Your task to perform on an android device: toggle translation in the chrome app Image 0: 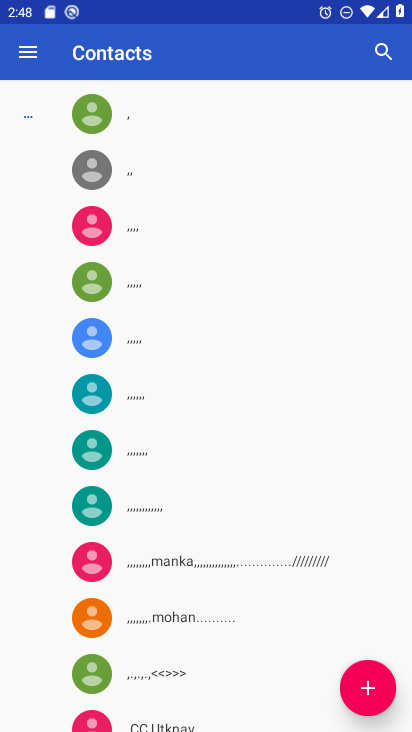
Step 0: press home button
Your task to perform on an android device: toggle translation in the chrome app Image 1: 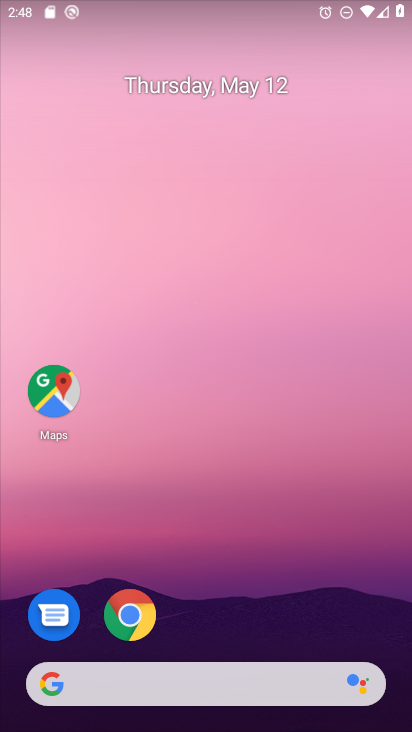
Step 1: drag from (279, 692) to (354, 47)
Your task to perform on an android device: toggle translation in the chrome app Image 2: 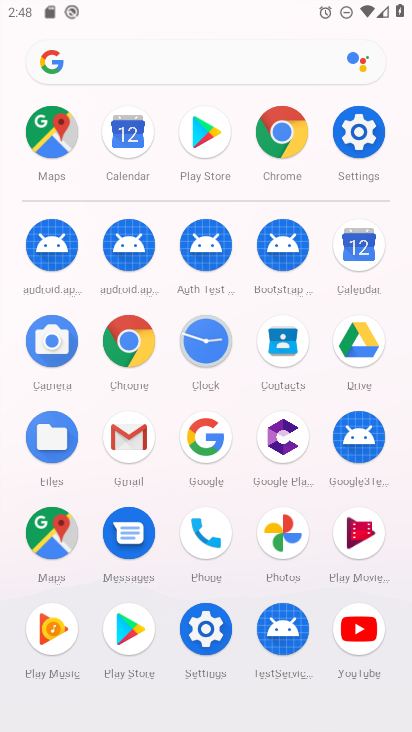
Step 2: click (118, 352)
Your task to perform on an android device: toggle translation in the chrome app Image 3: 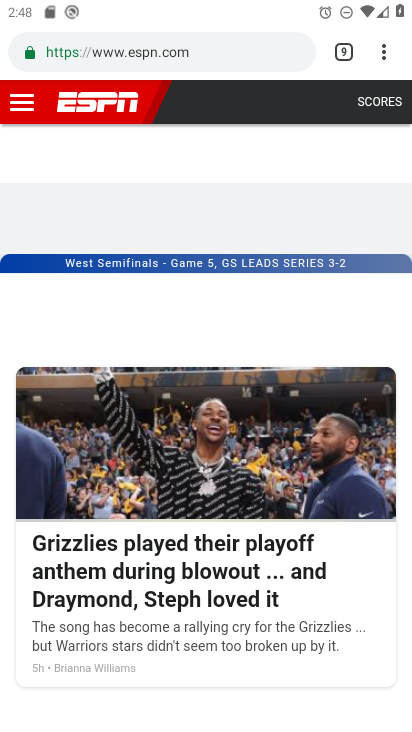
Step 3: drag from (382, 48) to (202, 640)
Your task to perform on an android device: toggle translation in the chrome app Image 4: 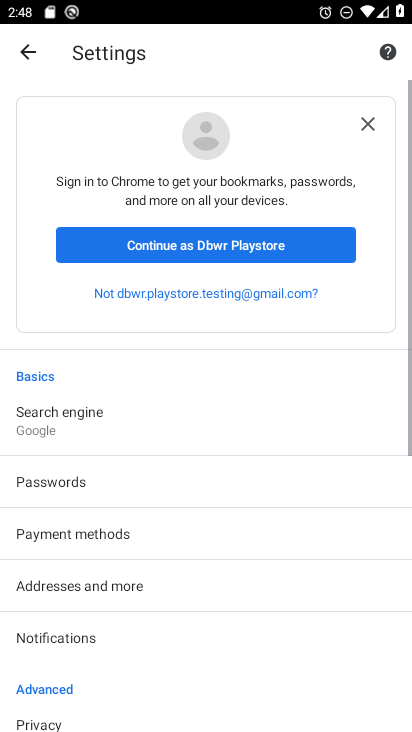
Step 4: drag from (202, 640) to (235, 97)
Your task to perform on an android device: toggle translation in the chrome app Image 5: 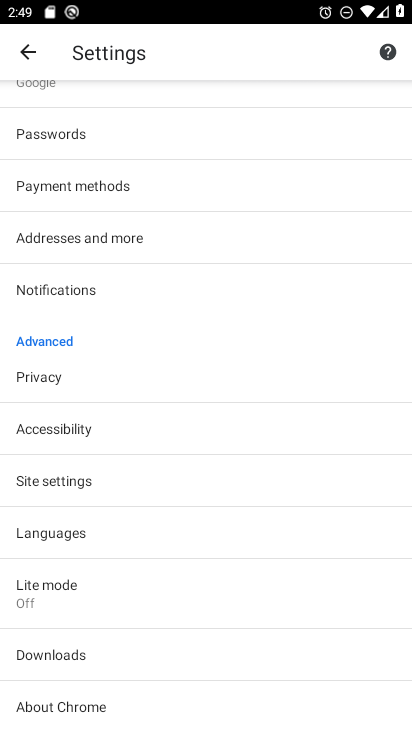
Step 5: click (93, 542)
Your task to perform on an android device: toggle translation in the chrome app Image 6: 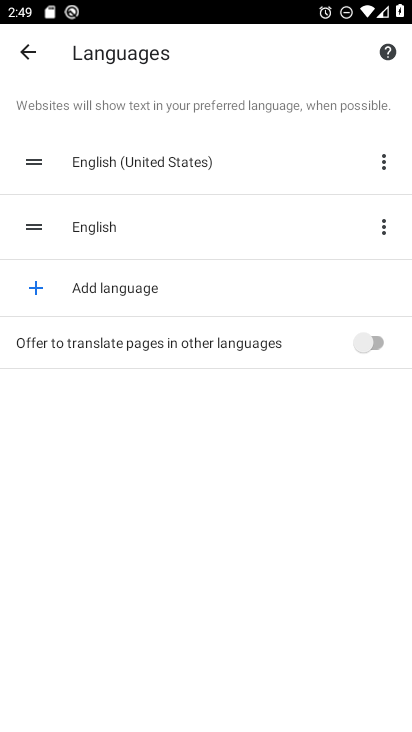
Step 6: click (376, 337)
Your task to perform on an android device: toggle translation in the chrome app Image 7: 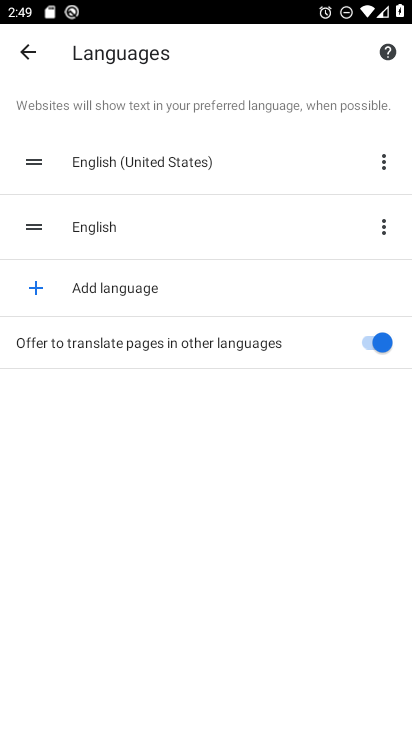
Step 7: task complete